Your task to perform on an android device: What is the news today? Image 0: 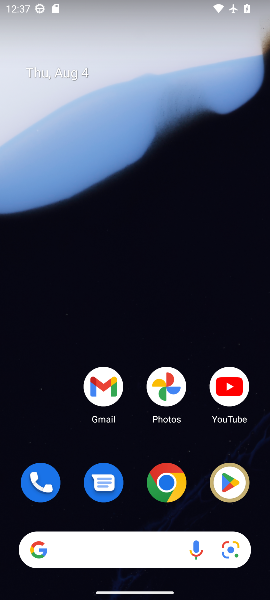
Step 0: drag from (139, 441) to (143, 147)
Your task to perform on an android device: What is the news today? Image 1: 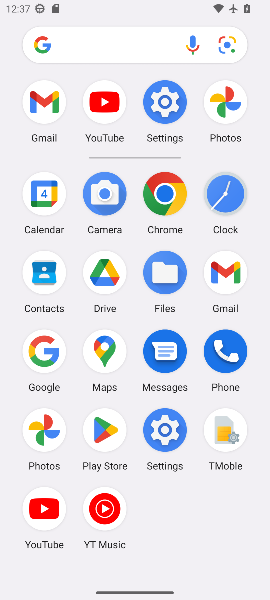
Step 1: click (51, 358)
Your task to perform on an android device: What is the news today? Image 2: 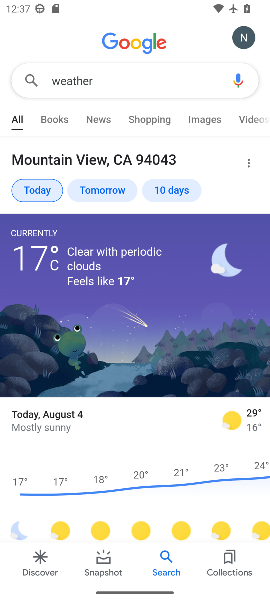
Step 2: click (117, 82)
Your task to perform on an android device: What is the news today? Image 3: 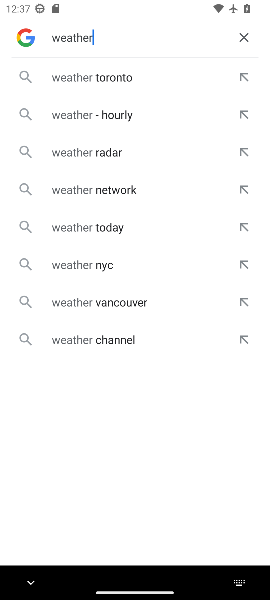
Step 3: click (239, 33)
Your task to perform on an android device: What is the news today? Image 4: 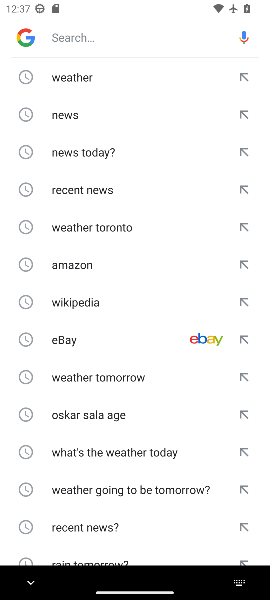
Step 4: click (89, 152)
Your task to perform on an android device: What is the news today? Image 5: 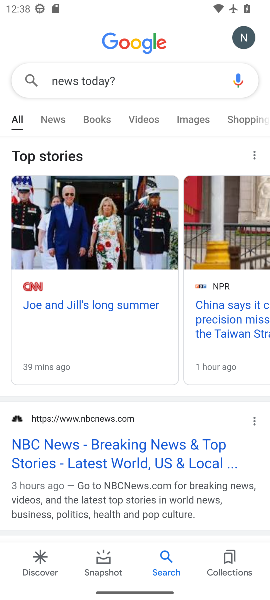
Step 5: click (51, 123)
Your task to perform on an android device: What is the news today? Image 6: 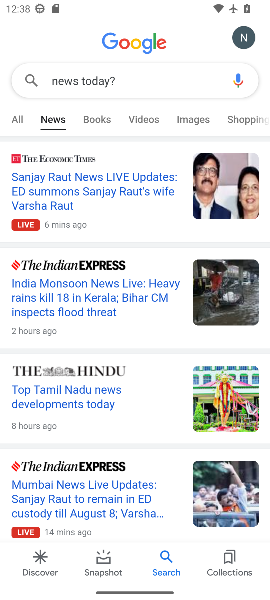
Step 6: task complete